Your task to perform on an android device: turn on javascript in the chrome app Image 0: 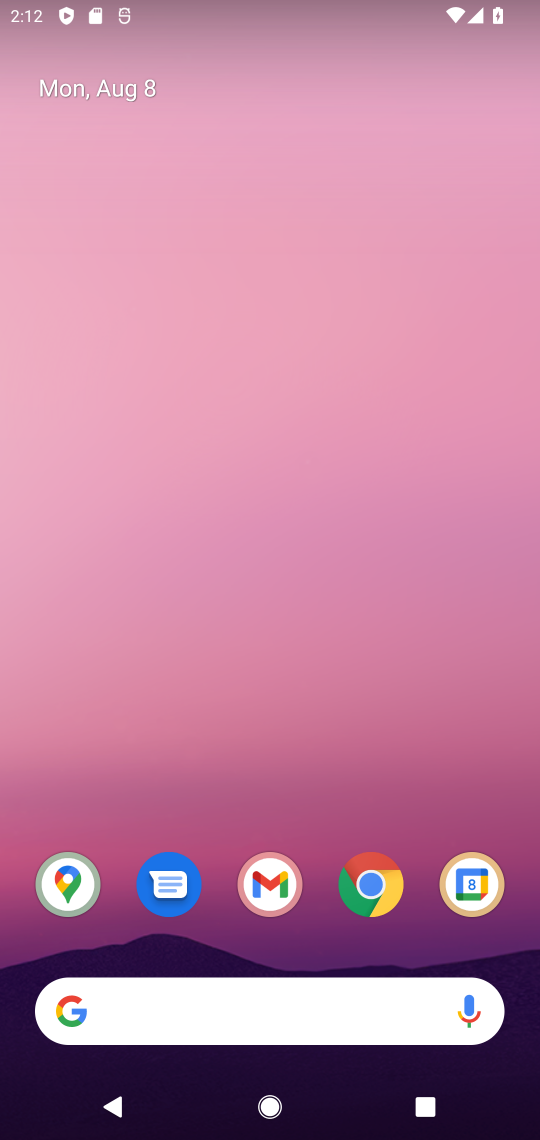
Step 0: click (378, 881)
Your task to perform on an android device: turn on javascript in the chrome app Image 1: 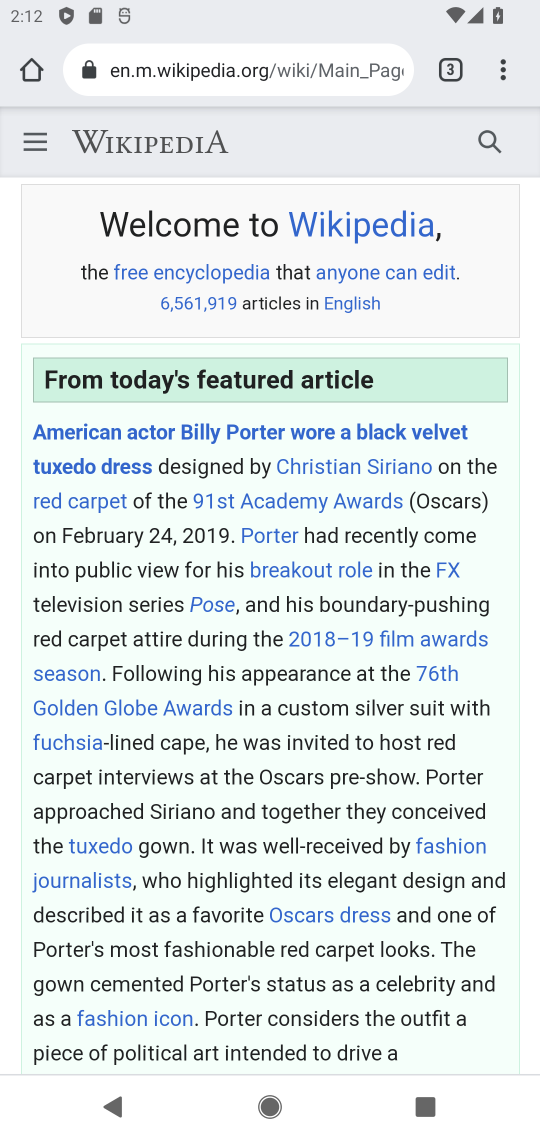
Step 1: click (498, 71)
Your task to perform on an android device: turn on javascript in the chrome app Image 2: 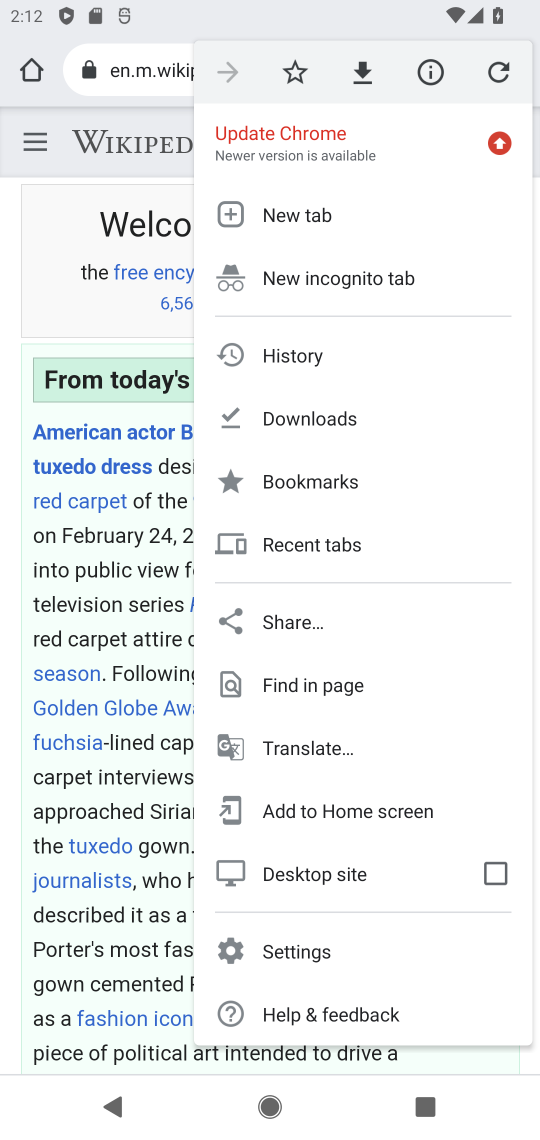
Step 2: click (304, 949)
Your task to perform on an android device: turn on javascript in the chrome app Image 3: 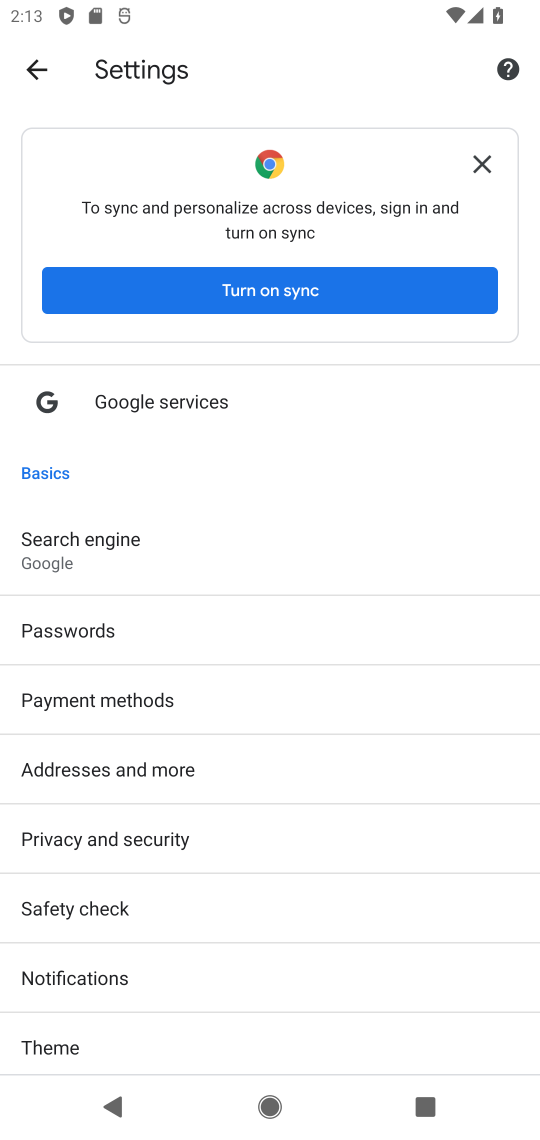
Step 3: drag from (312, 952) to (295, 557)
Your task to perform on an android device: turn on javascript in the chrome app Image 4: 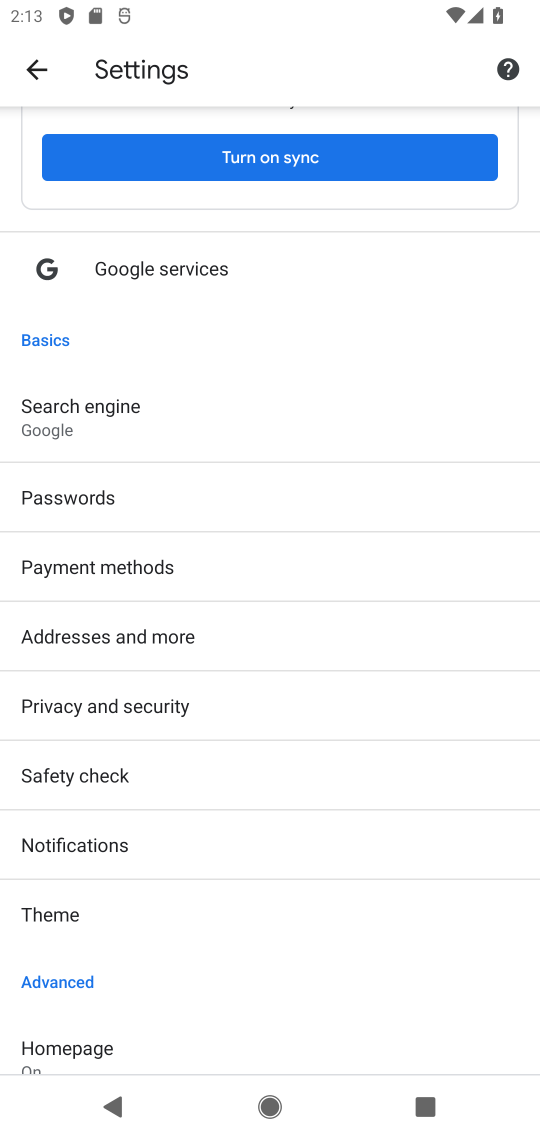
Step 4: drag from (295, 916) to (262, 324)
Your task to perform on an android device: turn on javascript in the chrome app Image 5: 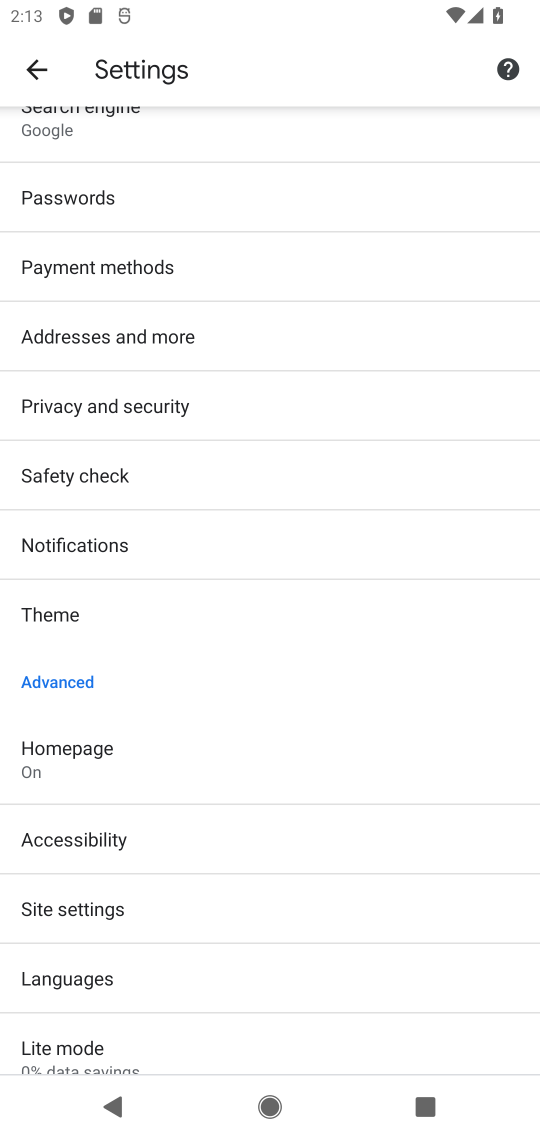
Step 5: click (87, 897)
Your task to perform on an android device: turn on javascript in the chrome app Image 6: 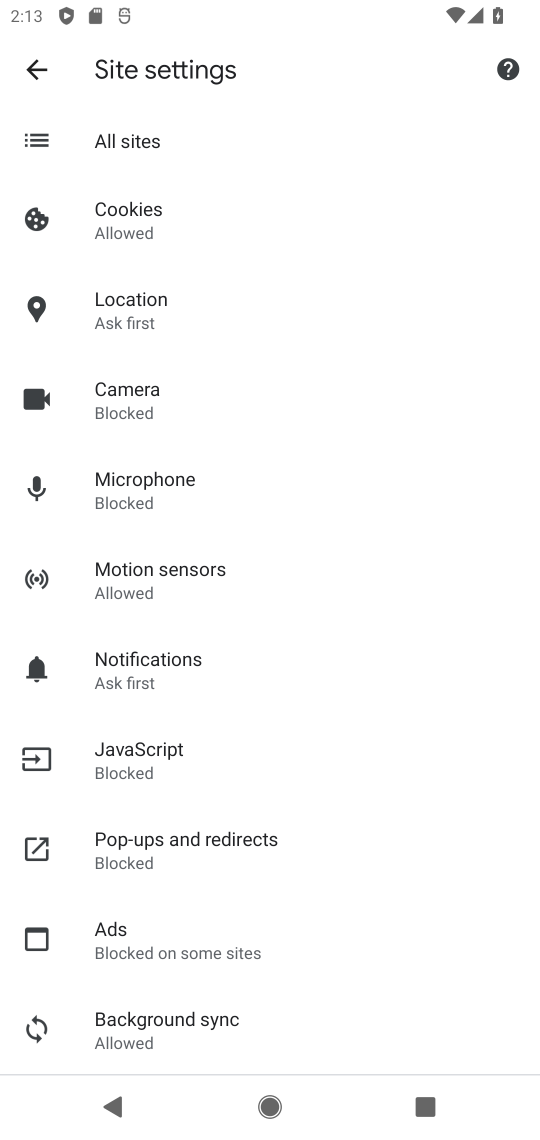
Step 6: click (130, 773)
Your task to perform on an android device: turn on javascript in the chrome app Image 7: 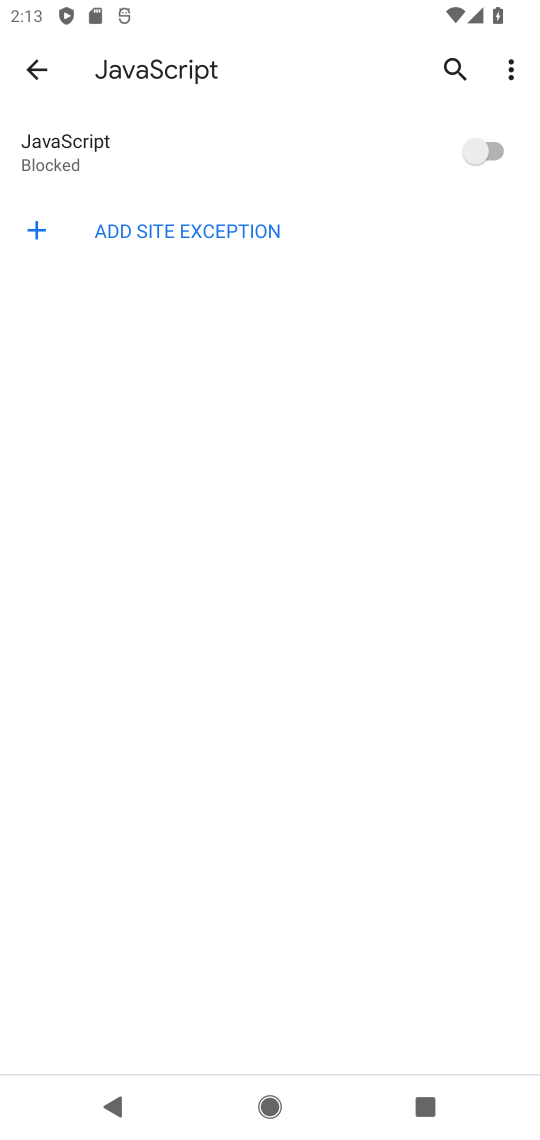
Step 7: click (497, 148)
Your task to perform on an android device: turn on javascript in the chrome app Image 8: 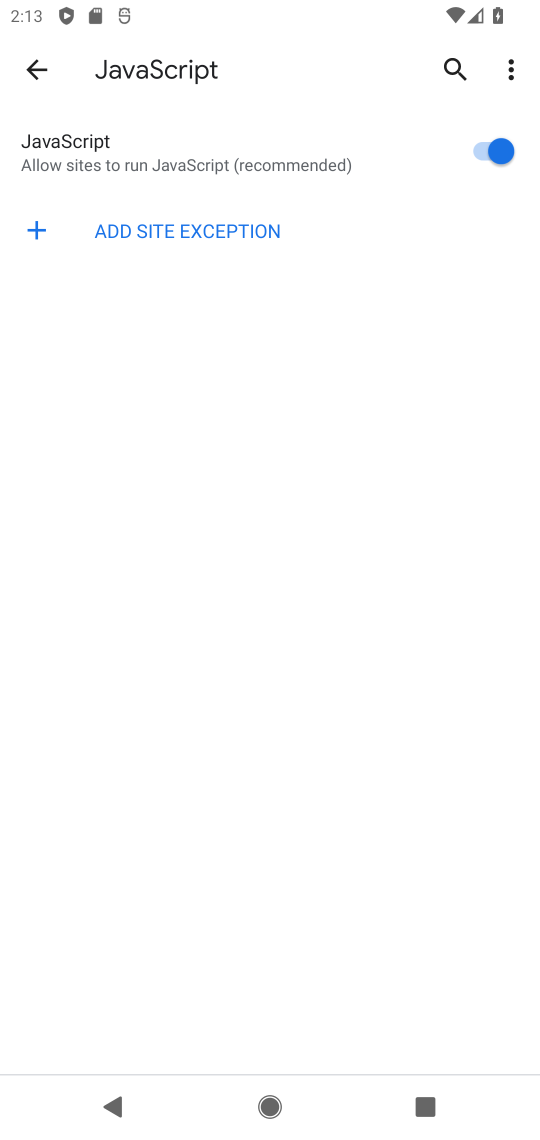
Step 8: task complete